Your task to perform on an android device: Go to wifi settings Image 0: 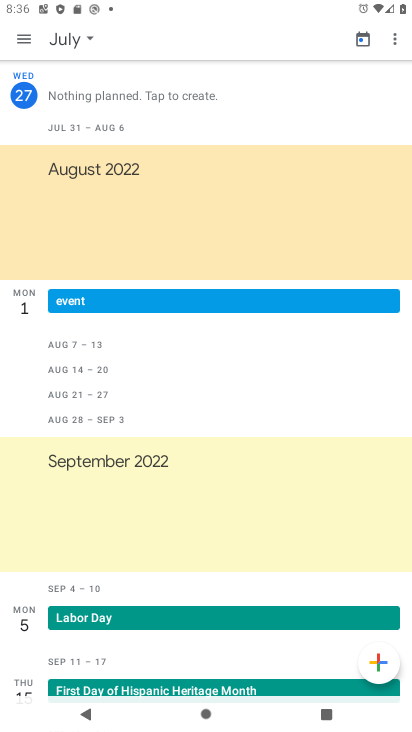
Step 0: press home button
Your task to perform on an android device: Go to wifi settings Image 1: 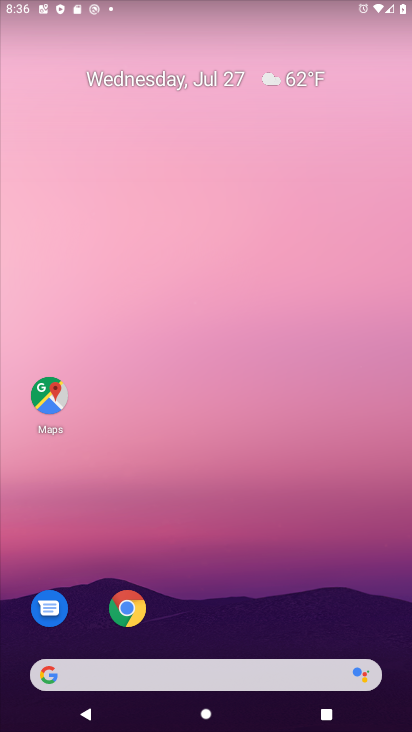
Step 1: drag from (301, 491) to (312, 141)
Your task to perform on an android device: Go to wifi settings Image 2: 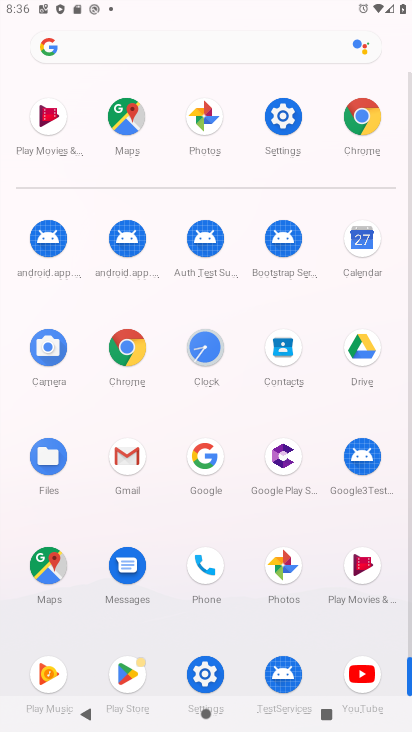
Step 2: click (278, 130)
Your task to perform on an android device: Go to wifi settings Image 3: 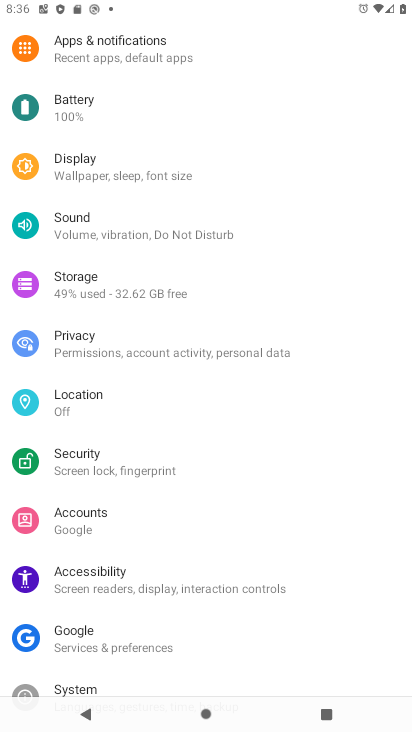
Step 3: drag from (144, 146) to (160, 473)
Your task to perform on an android device: Go to wifi settings Image 4: 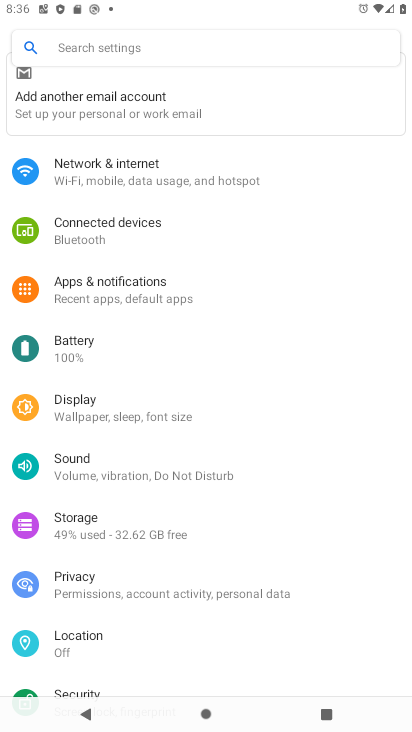
Step 4: click (115, 165)
Your task to perform on an android device: Go to wifi settings Image 5: 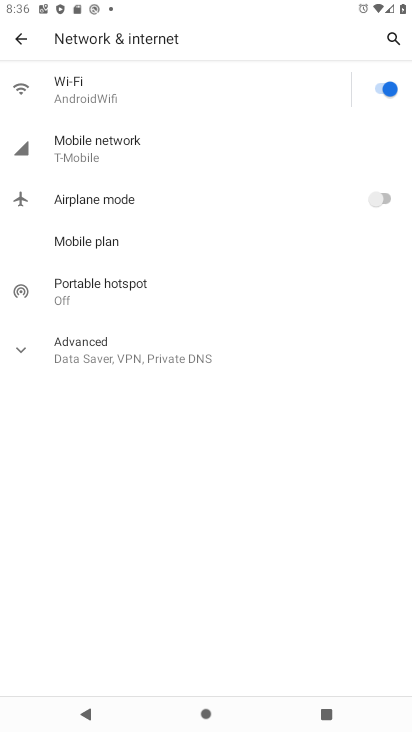
Step 5: task complete